Your task to perform on an android device: Open Chrome and go to settings Image 0: 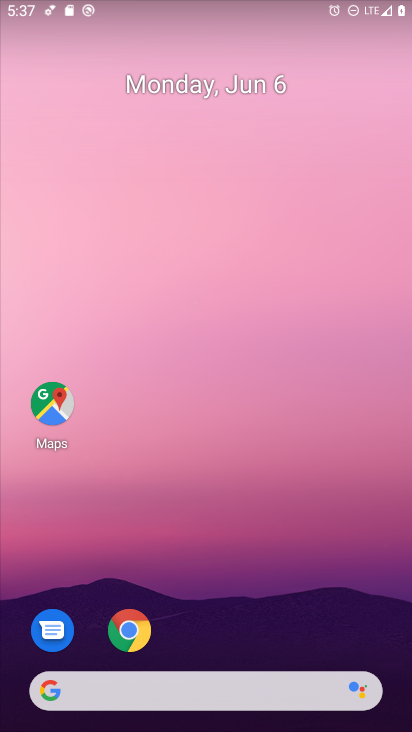
Step 0: task complete